Your task to perform on an android device: change the upload size in google photos Image 0: 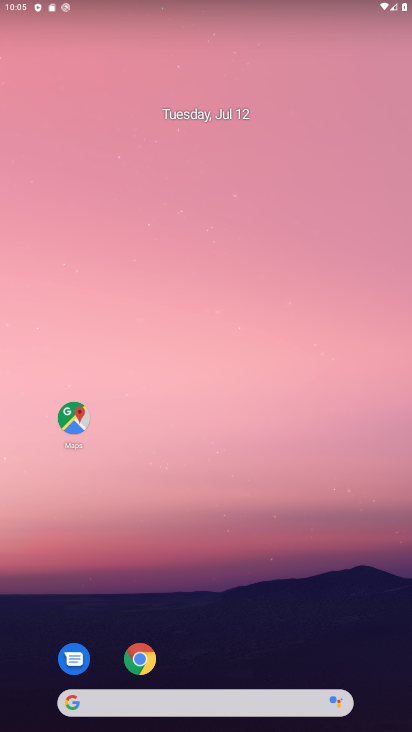
Step 0: drag from (167, 123) to (171, 38)
Your task to perform on an android device: change the upload size in google photos Image 1: 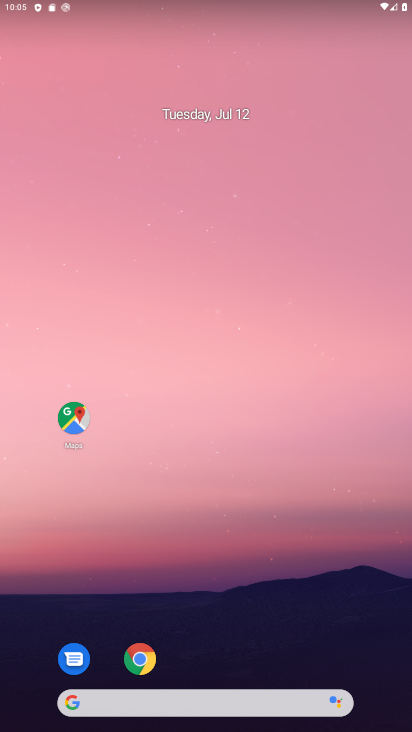
Step 1: drag from (215, 278) to (215, 66)
Your task to perform on an android device: change the upload size in google photos Image 2: 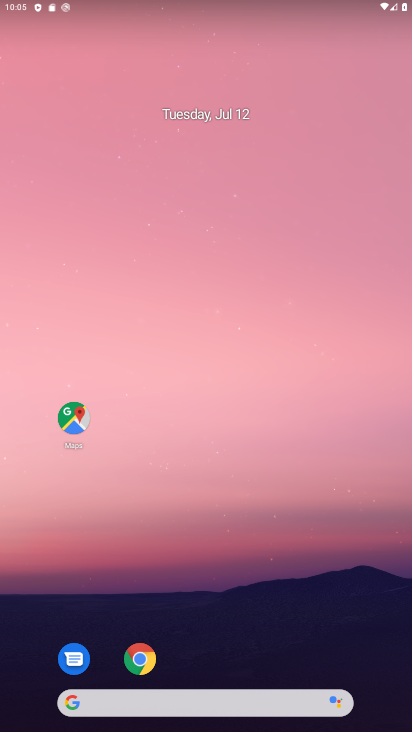
Step 2: drag from (233, 357) to (235, 101)
Your task to perform on an android device: change the upload size in google photos Image 3: 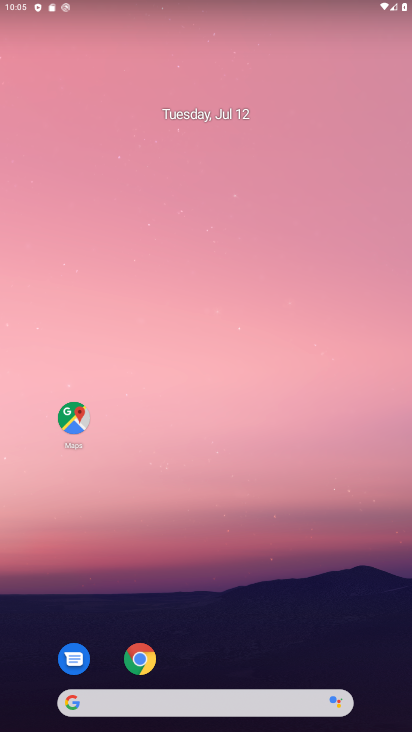
Step 3: drag from (191, 600) to (191, 174)
Your task to perform on an android device: change the upload size in google photos Image 4: 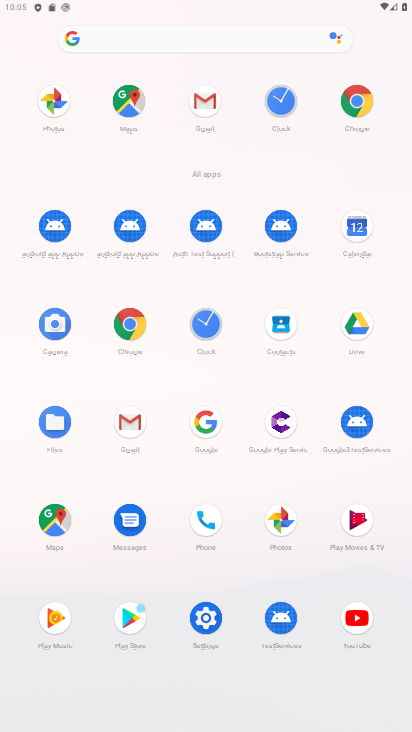
Step 4: click (48, 110)
Your task to perform on an android device: change the upload size in google photos Image 5: 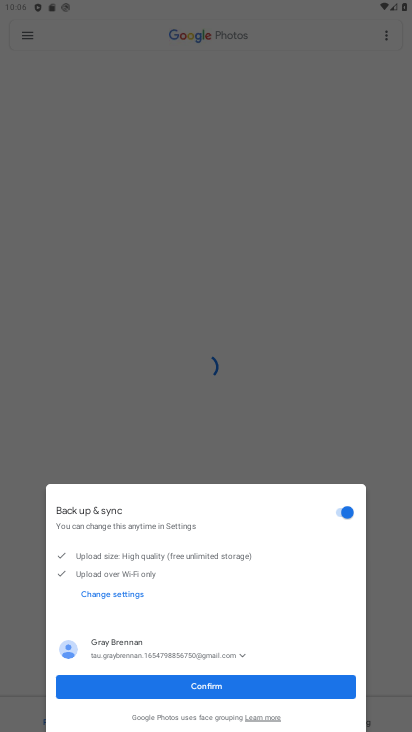
Step 5: click (194, 684)
Your task to perform on an android device: change the upload size in google photos Image 6: 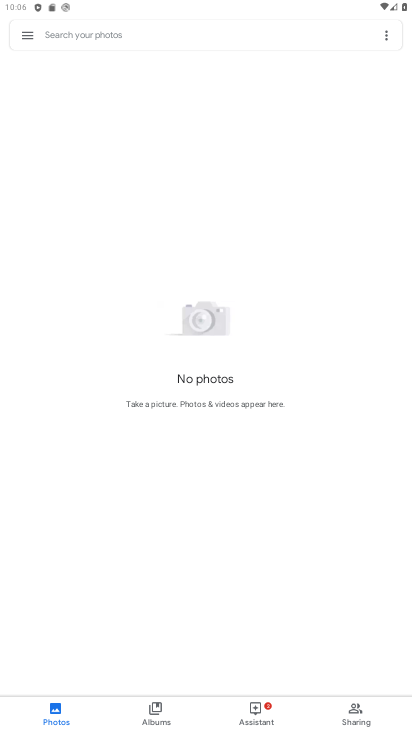
Step 6: click (28, 33)
Your task to perform on an android device: change the upload size in google photos Image 7: 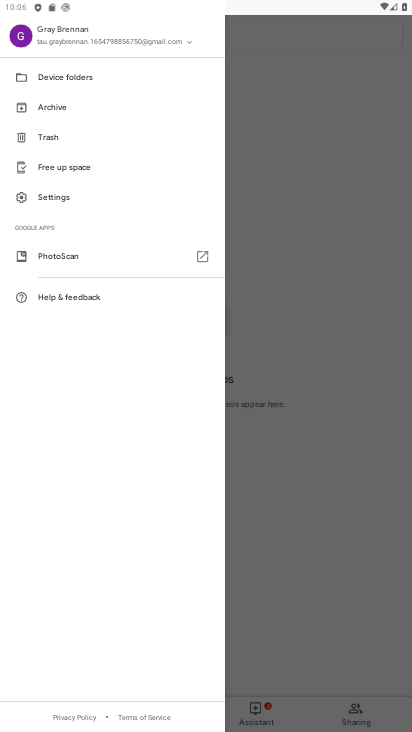
Step 7: click (57, 199)
Your task to perform on an android device: change the upload size in google photos Image 8: 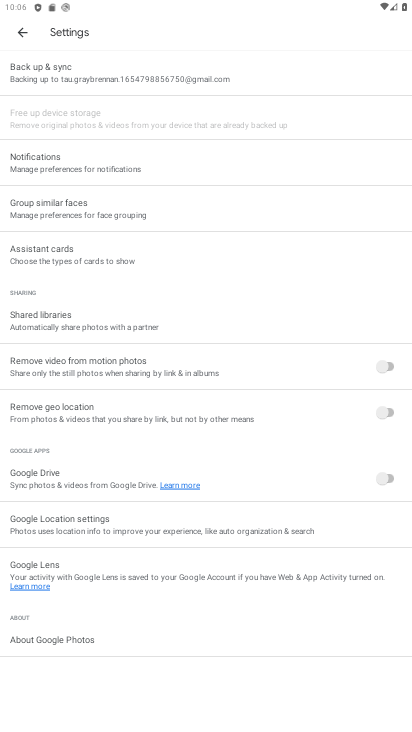
Step 8: click (80, 72)
Your task to perform on an android device: change the upload size in google photos Image 9: 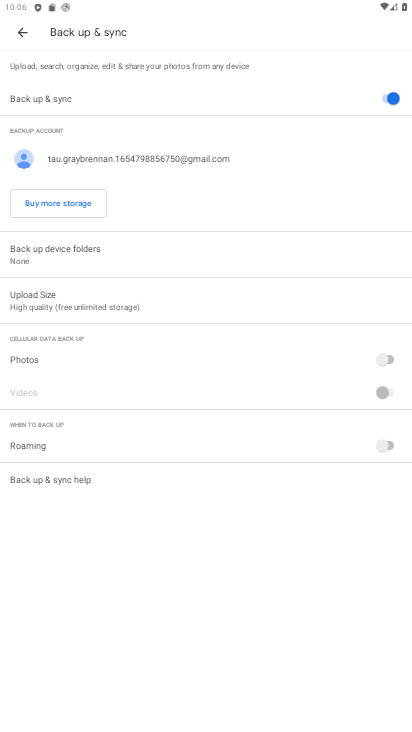
Step 9: click (41, 305)
Your task to perform on an android device: change the upload size in google photos Image 10: 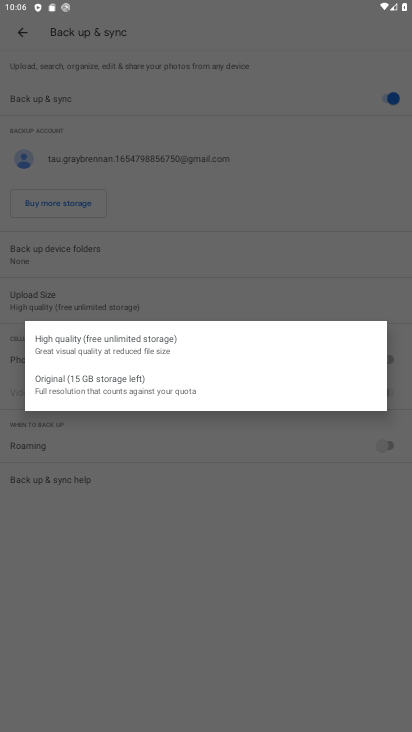
Step 10: click (67, 392)
Your task to perform on an android device: change the upload size in google photos Image 11: 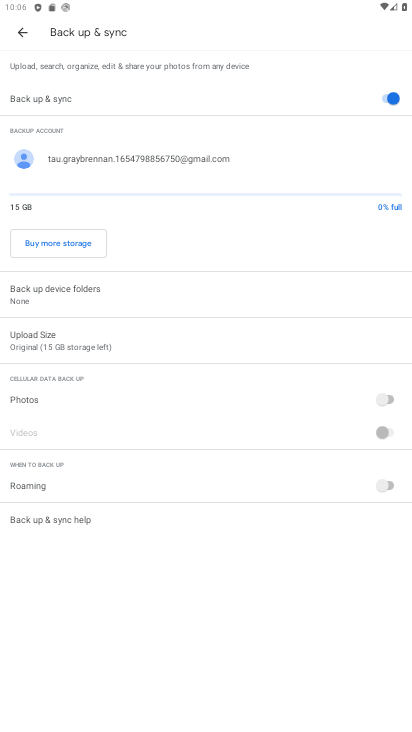
Step 11: task complete